Your task to perform on an android device: Search for a good pizza place on Maps Image 0: 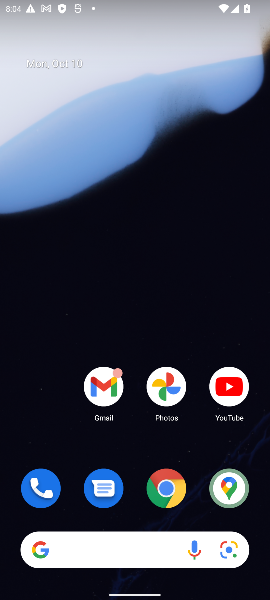
Step 0: drag from (138, 506) to (146, 40)
Your task to perform on an android device: Search for a good pizza place on Maps Image 1: 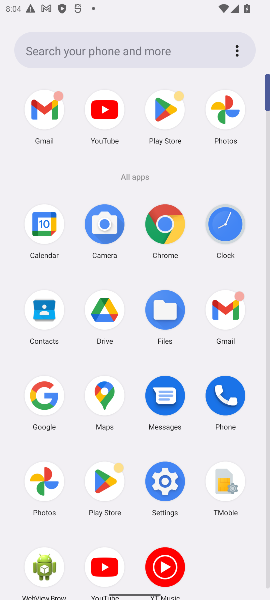
Step 1: click (98, 400)
Your task to perform on an android device: Search for a good pizza place on Maps Image 2: 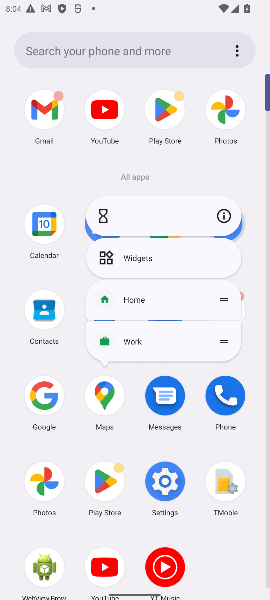
Step 2: click (106, 385)
Your task to perform on an android device: Search for a good pizza place on Maps Image 3: 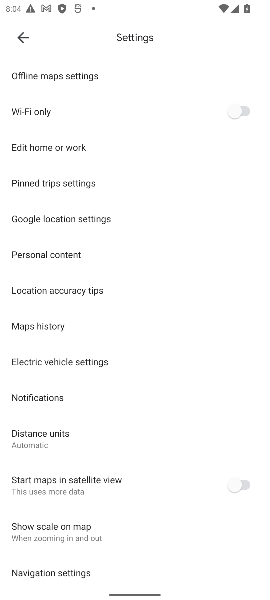
Step 3: press back button
Your task to perform on an android device: Search for a good pizza place on Maps Image 4: 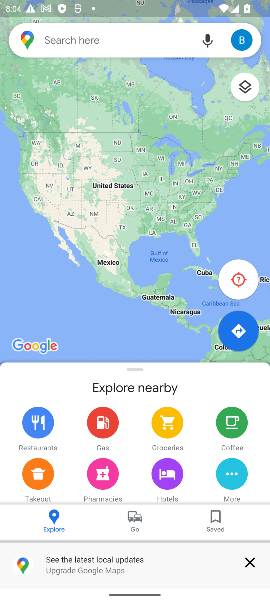
Step 4: click (134, 38)
Your task to perform on an android device: Search for a good pizza place on Maps Image 5: 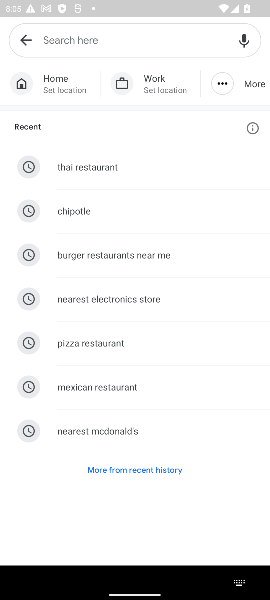
Step 5: type "good pizza place "
Your task to perform on an android device: Search for a good pizza place on Maps Image 6: 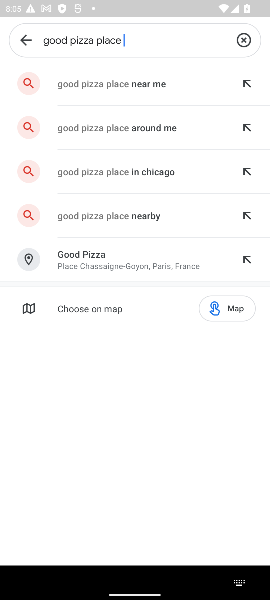
Step 6: press enter
Your task to perform on an android device: Search for a good pizza place on Maps Image 7: 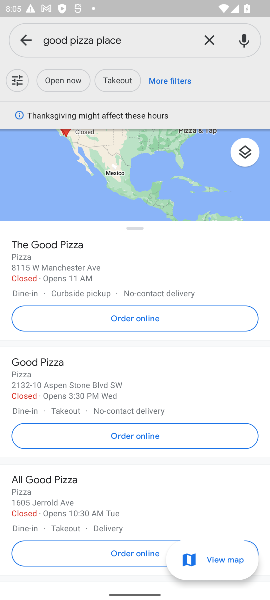
Step 7: task complete